Your task to perform on an android device: Toggle the flashlight Image 0: 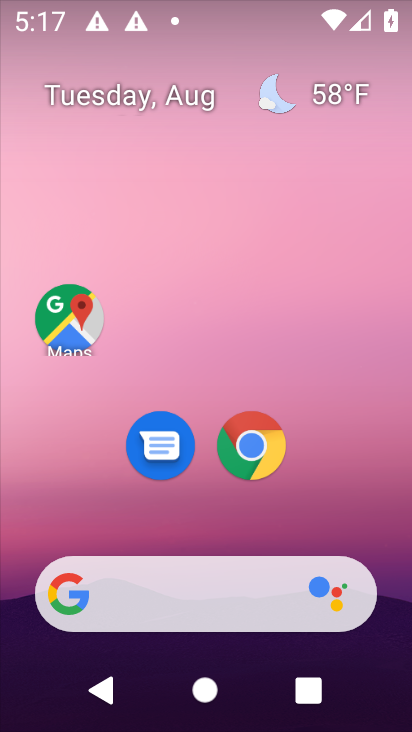
Step 0: drag from (188, 531) to (169, 120)
Your task to perform on an android device: Toggle the flashlight Image 1: 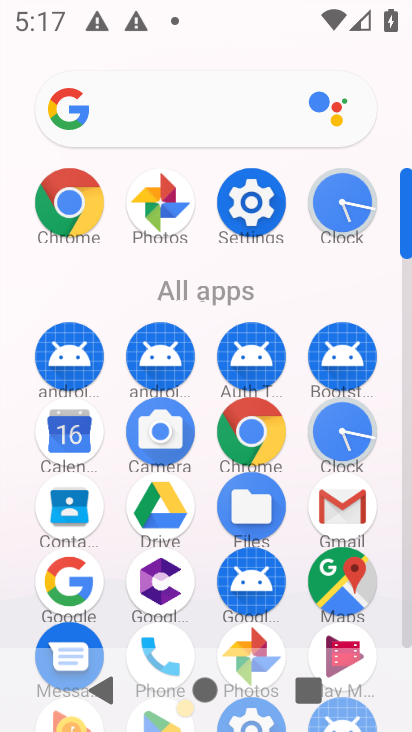
Step 1: click (244, 209)
Your task to perform on an android device: Toggle the flashlight Image 2: 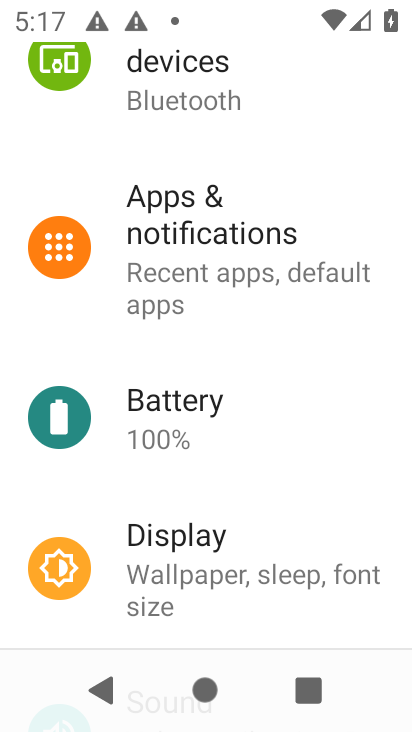
Step 2: task complete